Your task to perform on an android device: Go to privacy settings Image 0: 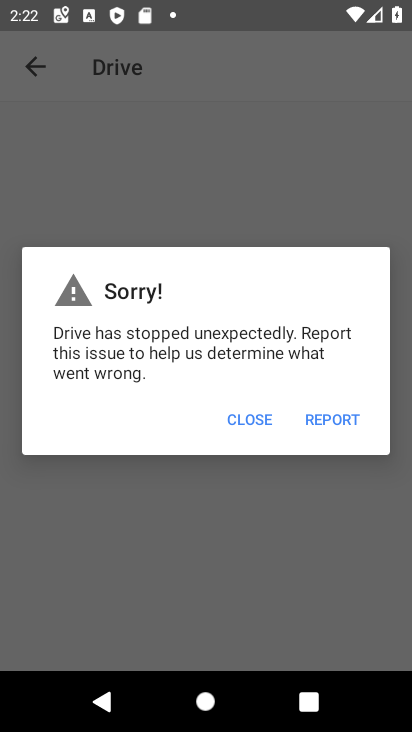
Step 0: press home button
Your task to perform on an android device: Go to privacy settings Image 1: 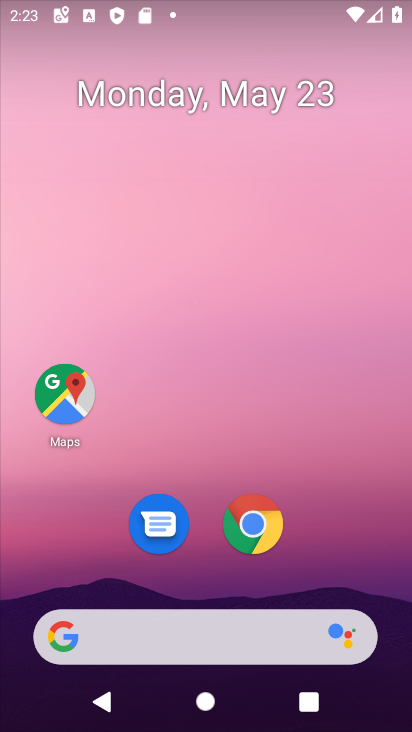
Step 1: drag from (217, 433) to (237, 1)
Your task to perform on an android device: Go to privacy settings Image 2: 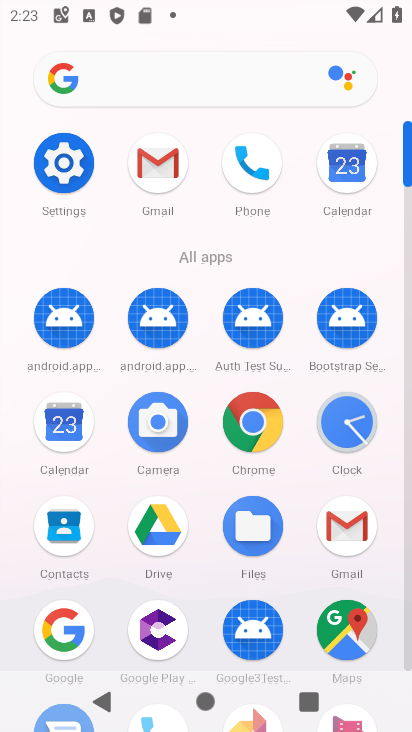
Step 2: click (67, 165)
Your task to perform on an android device: Go to privacy settings Image 3: 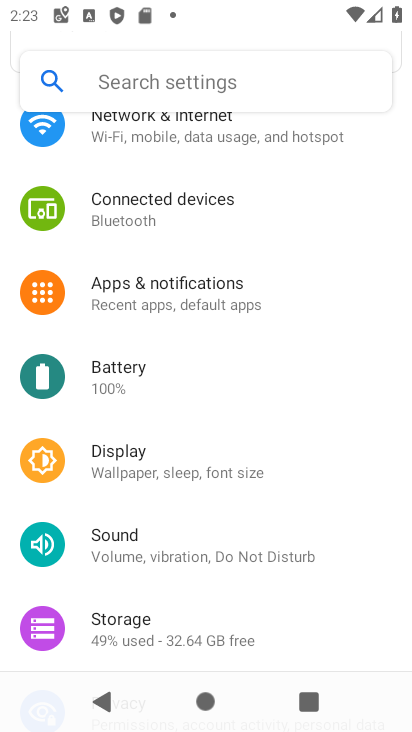
Step 3: drag from (232, 536) to (246, 198)
Your task to perform on an android device: Go to privacy settings Image 4: 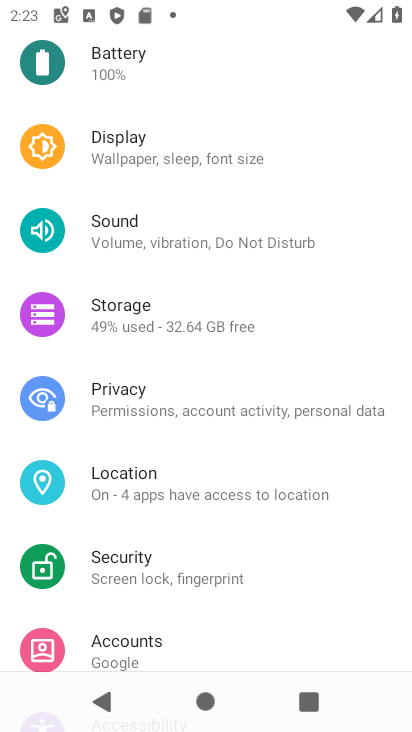
Step 4: click (257, 403)
Your task to perform on an android device: Go to privacy settings Image 5: 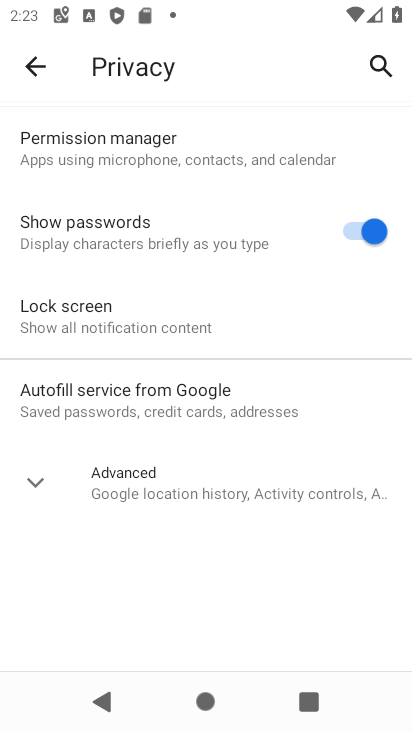
Step 5: task complete